Your task to perform on an android device: check battery use Image 0: 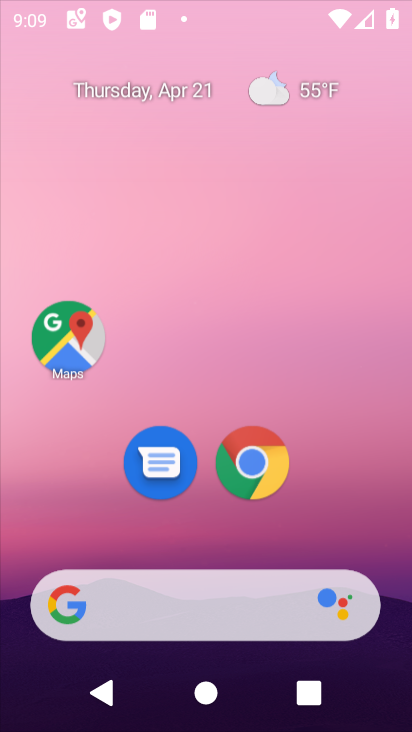
Step 0: click (353, 50)
Your task to perform on an android device: check battery use Image 1: 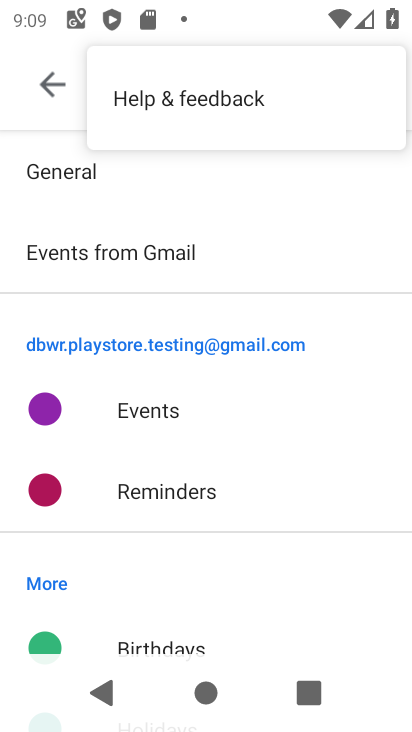
Step 1: press home button
Your task to perform on an android device: check battery use Image 2: 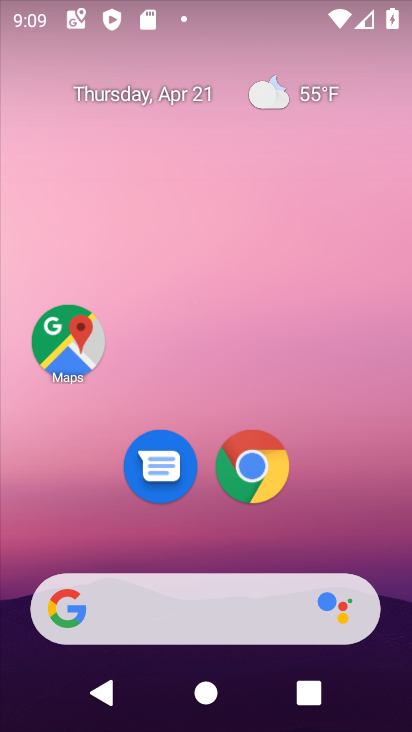
Step 2: drag from (323, 529) to (323, 181)
Your task to perform on an android device: check battery use Image 3: 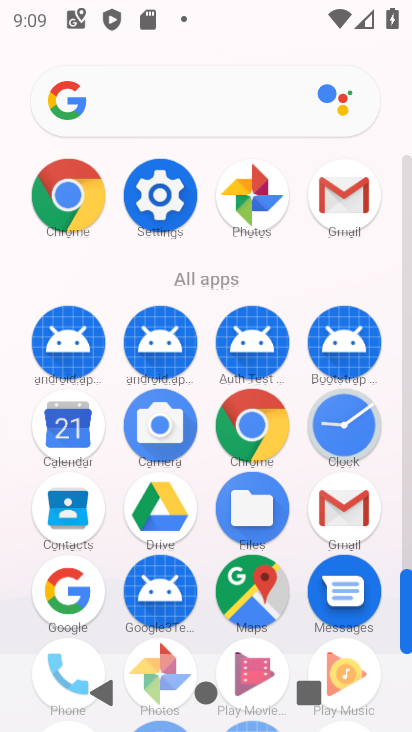
Step 3: click (165, 201)
Your task to perform on an android device: check battery use Image 4: 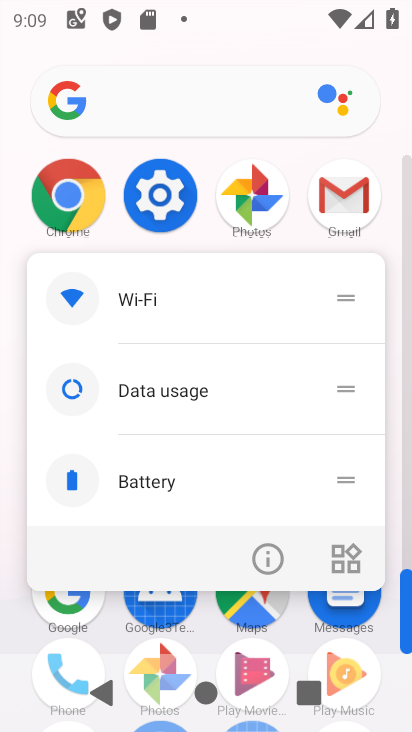
Step 4: click (166, 215)
Your task to perform on an android device: check battery use Image 5: 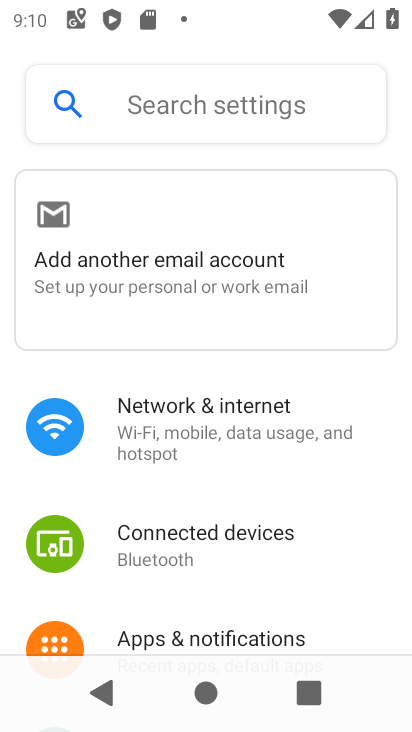
Step 5: drag from (192, 584) to (213, 224)
Your task to perform on an android device: check battery use Image 6: 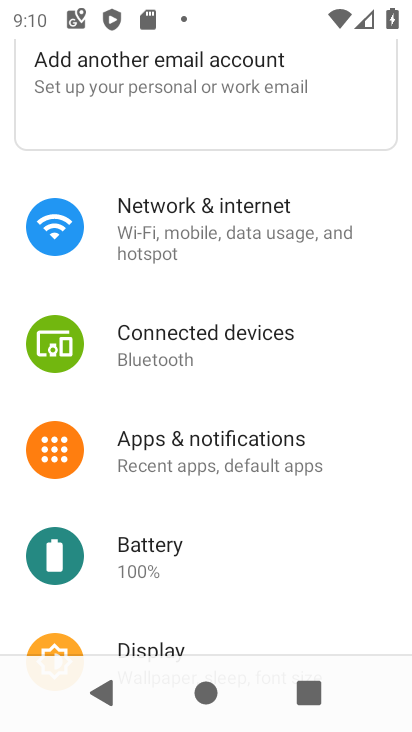
Step 6: click (165, 544)
Your task to perform on an android device: check battery use Image 7: 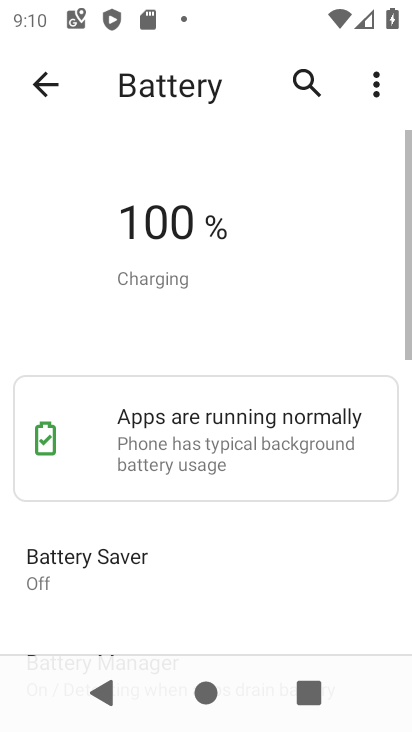
Step 7: task complete